Your task to perform on an android device: Go to Yahoo.com Image 0: 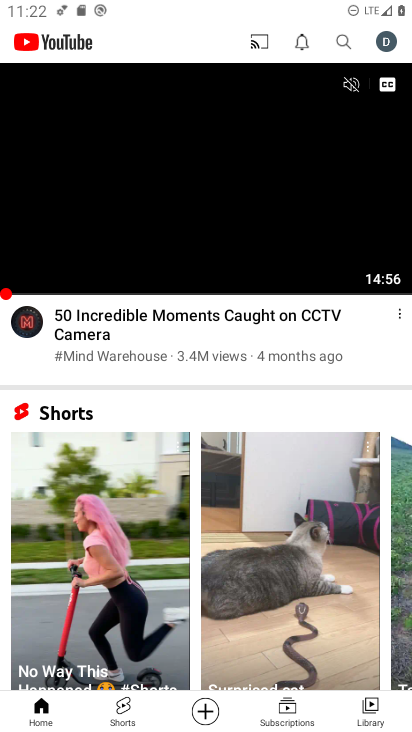
Step 0: press home button
Your task to perform on an android device: Go to Yahoo.com Image 1: 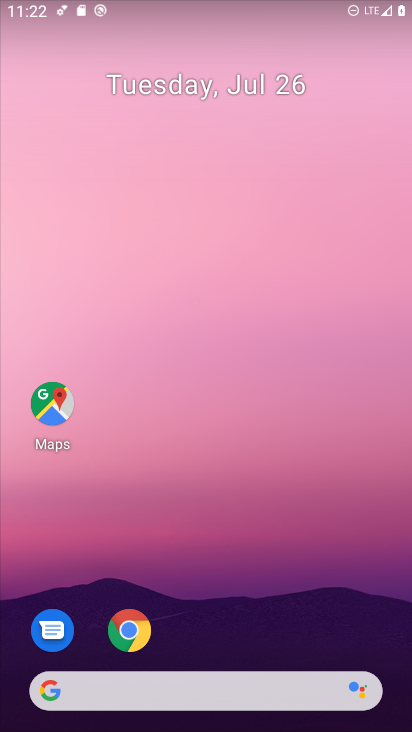
Step 1: click (130, 630)
Your task to perform on an android device: Go to Yahoo.com Image 2: 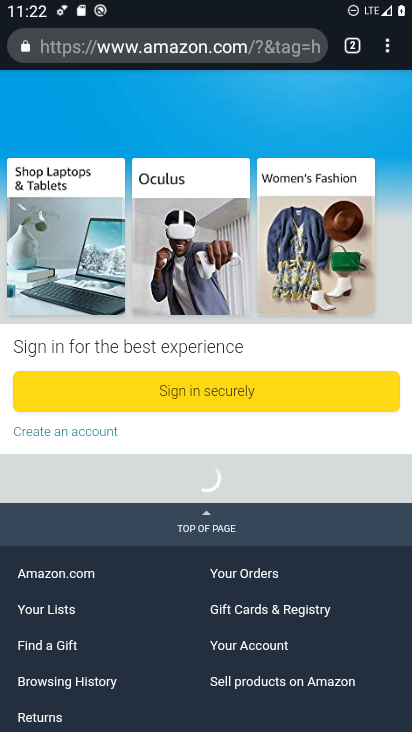
Step 2: click (302, 37)
Your task to perform on an android device: Go to Yahoo.com Image 3: 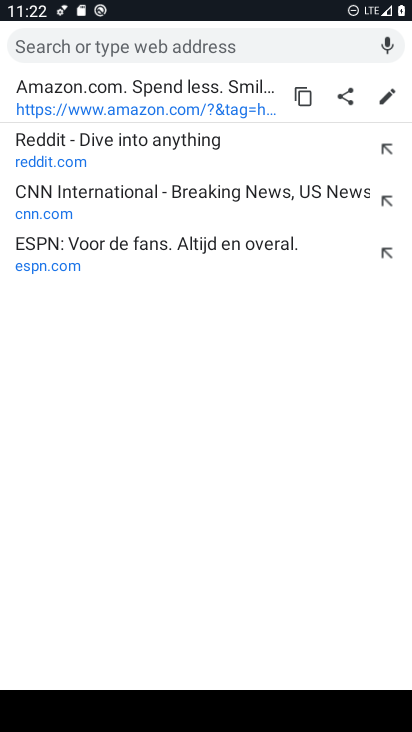
Step 3: type "yahoo.com"
Your task to perform on an android device: Go to Yahoo.com Image 4: 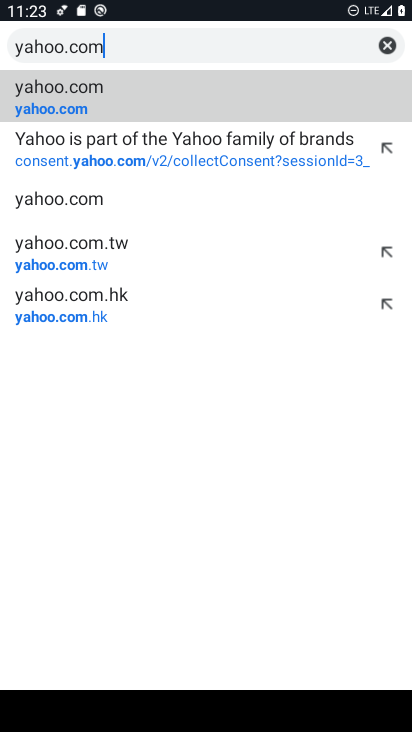
Step 4: click (47, 89)
Your task to perform on an android device: Go to Yahoo.com Image 5: 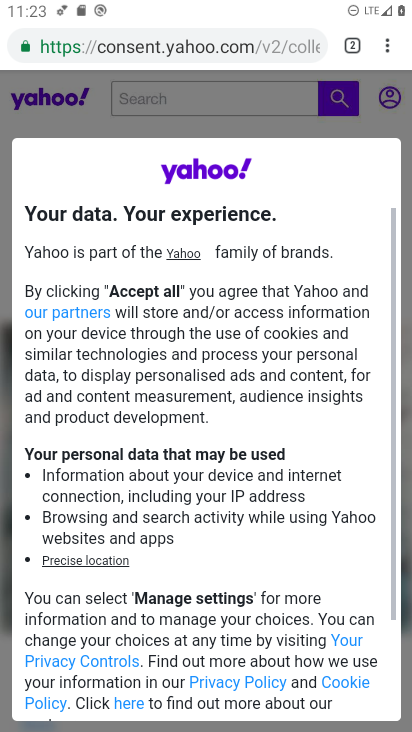
Step 5: drag from (340, 593) to (338, 235)
Your task to perform on an android device: Go to Yahoo.com Image 6: 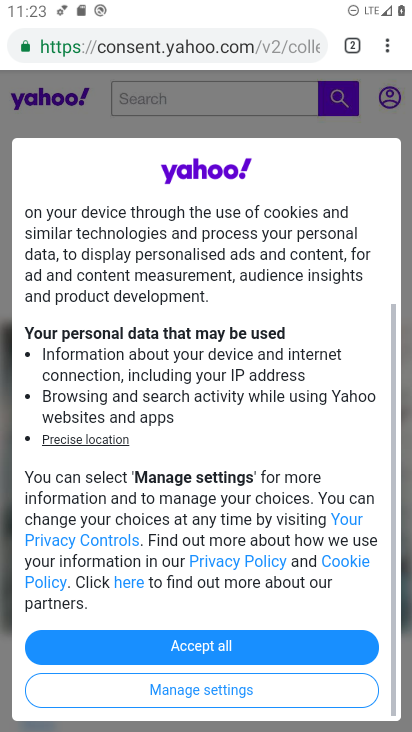
Step 6: click (196, 647)
Your task to perform on an android device: Go to Yahoo.com Image 7: 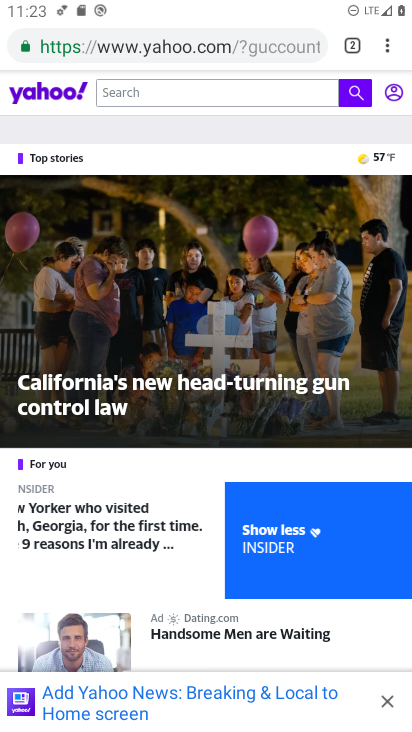
Step 7: task complete